Your task to perform on an android device: turn on data saver in the chrome app Image 0: 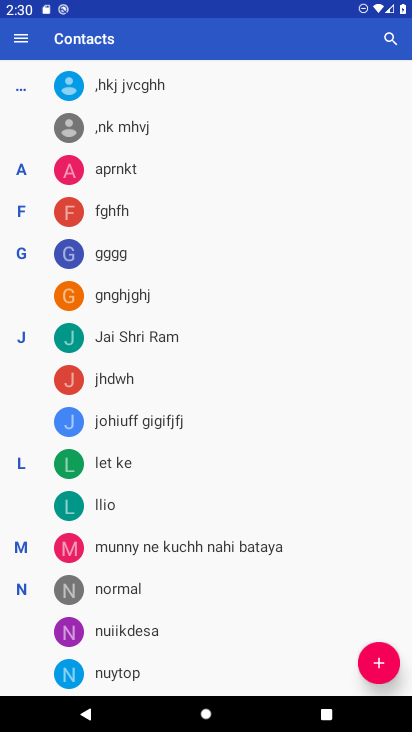
Step 0: press home button
Your task to perform on an android device: turn on data saver in the chrome app Image 1: 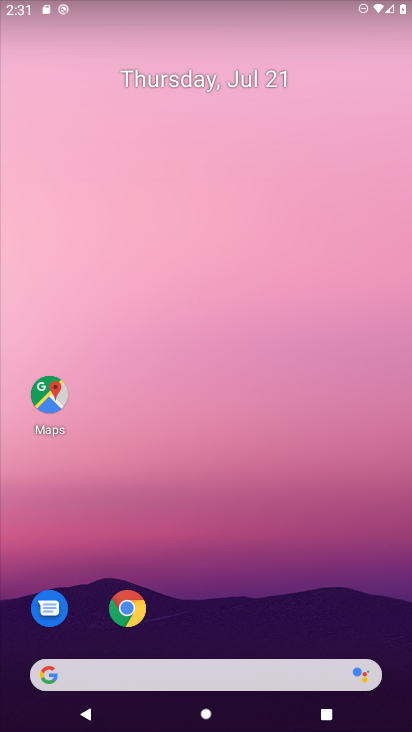
Step 1: click (132, 615)
Your task to perform on an android device: turn on data saver in the chrome app Image 2: 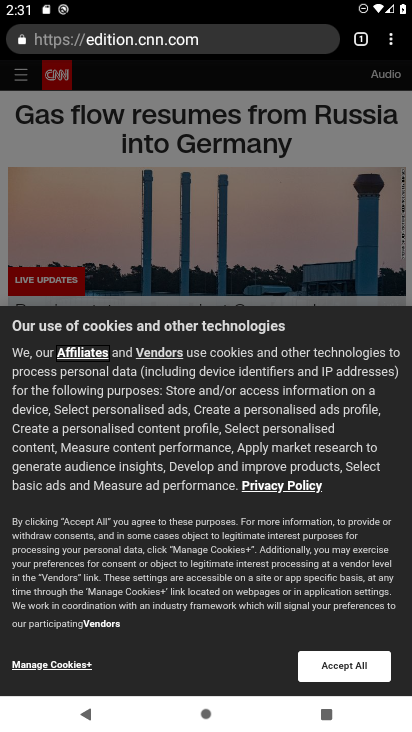
Step 2: click (390, 48)
Your task to perform on an android device: turn on data saver in the chrome app Image 3: 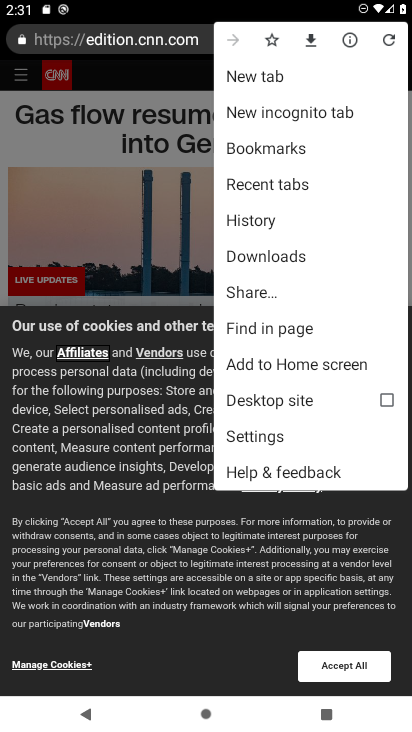
Step 3: click (266, 432)
Your task to perform on an android device: turn on data saver in the chrome app Image 4: 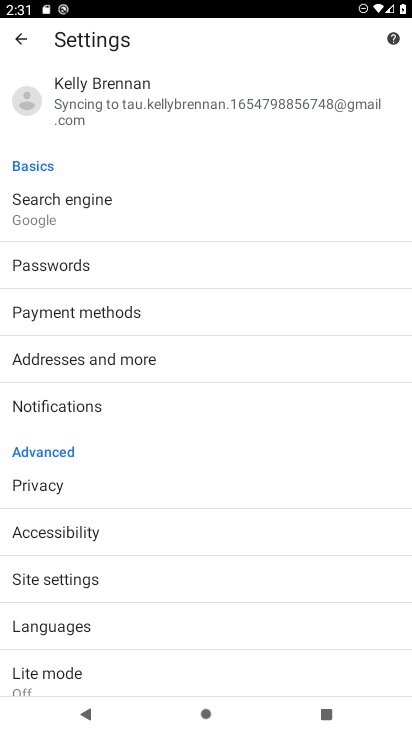
Step 4: click (86, 583)
Your task to perform on an android device: turn on data saver in the chrome app Image 5: 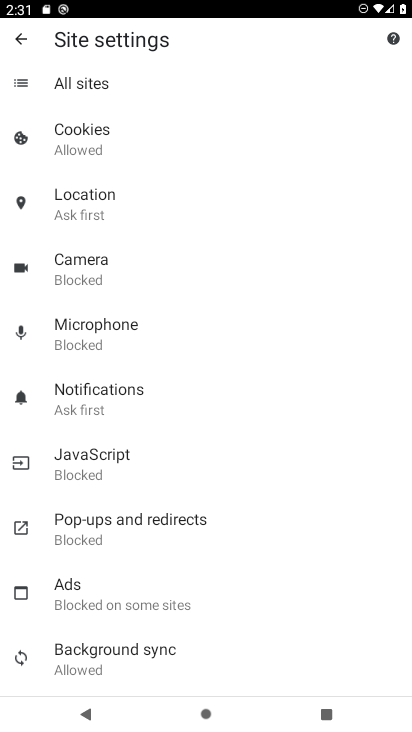
Step 5: click (20, 47)
Your task to perform on an android device: turn on data saver in the chrome app Image 6: 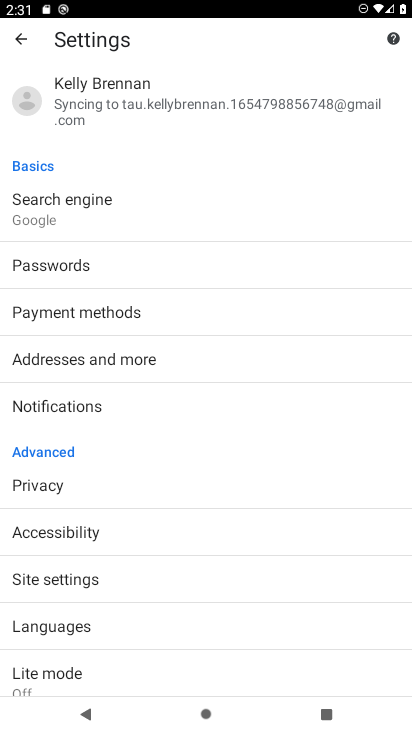
Step 6: click (58, 680)
Your task to perform on an android device: turn on data saver in the chrome app Image 7: 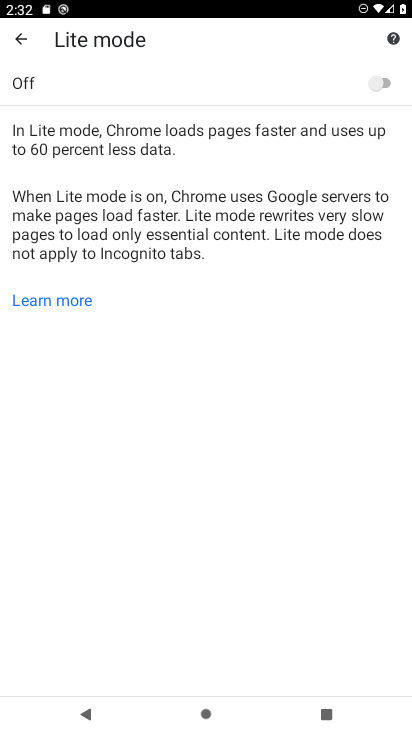
Step 7: click (388, 75)
Your task to perform on an android device: turn on data saver in the chrome app Image 8: 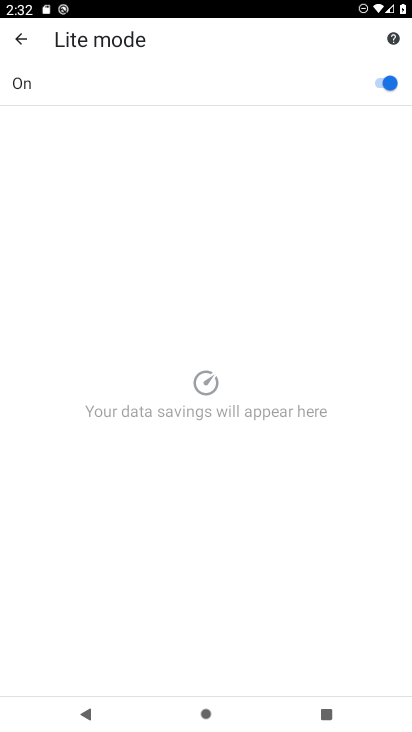
Step 8: task complete